Your task to perform on an android device: check android version Image 0: 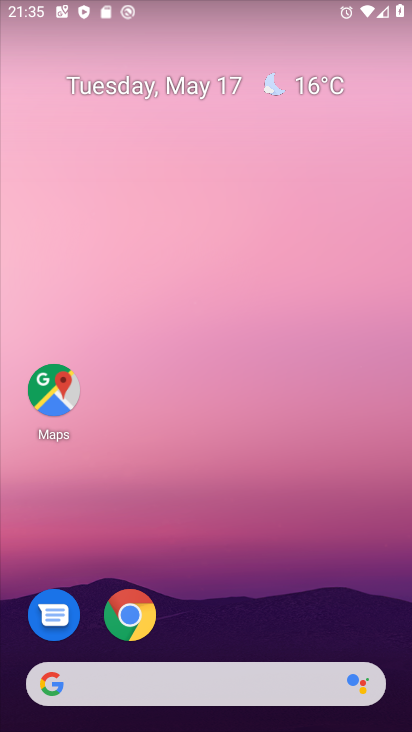
Step 0: drag from (254, 604) to (224, 8)
Your task to perform on an android device: check android version Image 1: 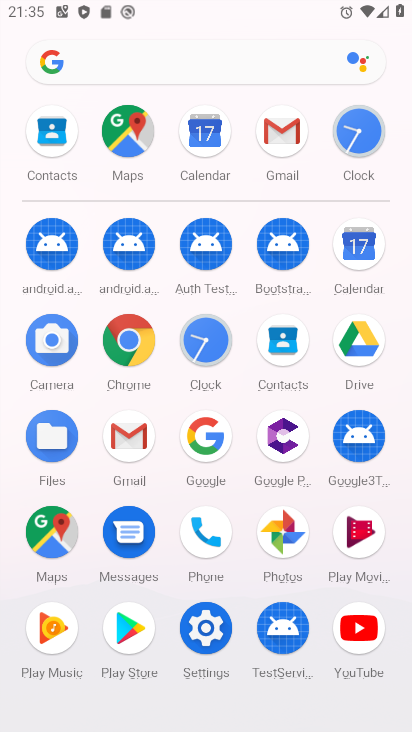
Step 1: drag from (155, 203) to (211, 14)
Your task to perform on an android device: check android version Image 2: 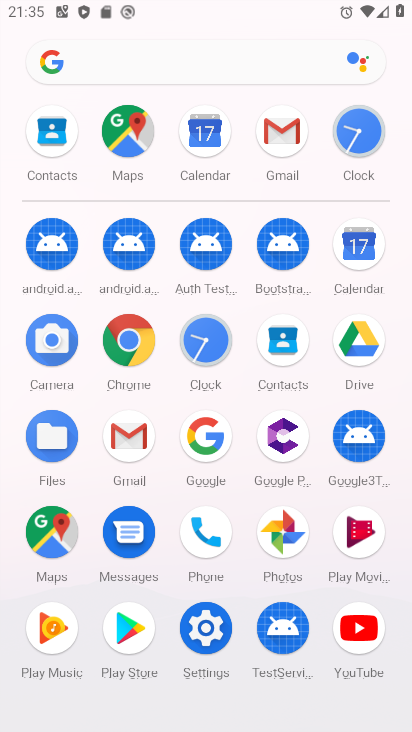
Step 2: click (219, 623)
Your task to perform on an android device: check android version Image 3: 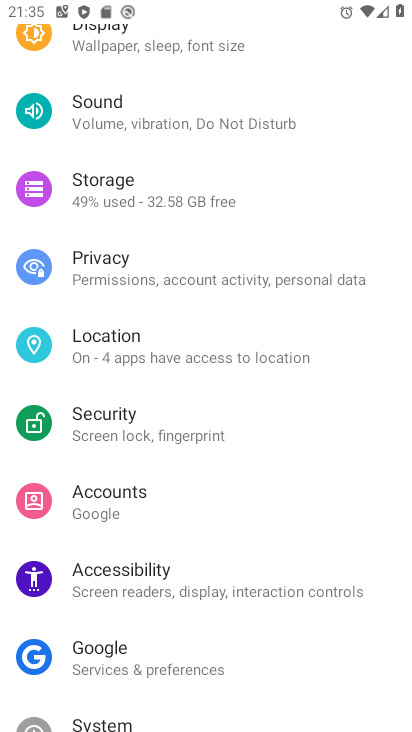
Step 3: drag from (174, 641) to (159, 259)
Your task to perform on an android device: check android version Image 4: 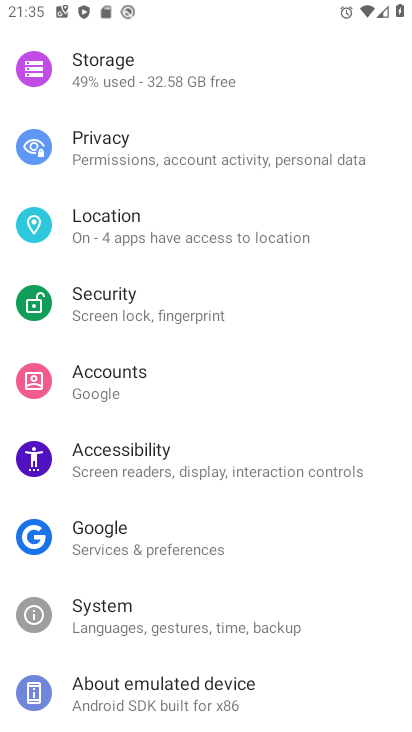
Step 4: drag from (194, 647) to (178, 265)
Your task to perform on an android device: check android version Image 5: 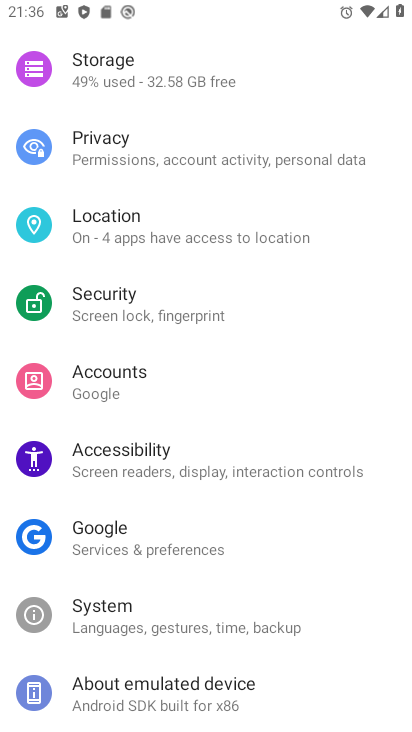
Step 5: click (171, 697)
Your task to perform on an android device: check android version Image 6: 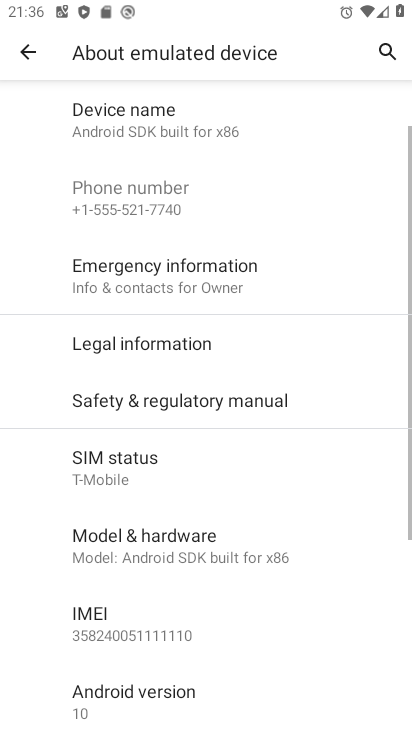
Step 6: click (168, 689)
Your task to perform on an android device: check android version Image 7: 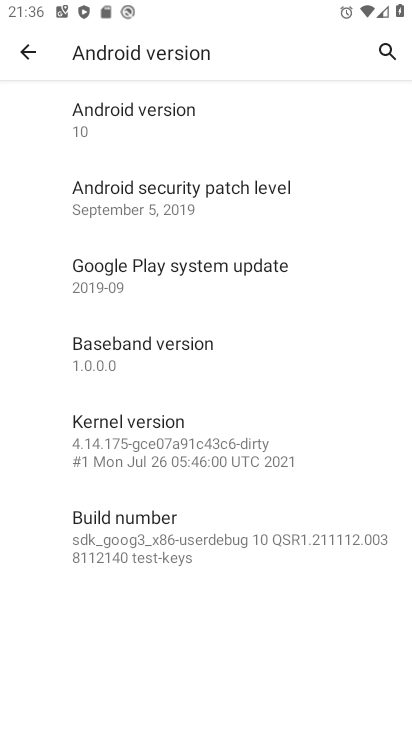
Step 7: task complete